Your task to perform on an android device: turn on the 24-hour format for clock Image 0: 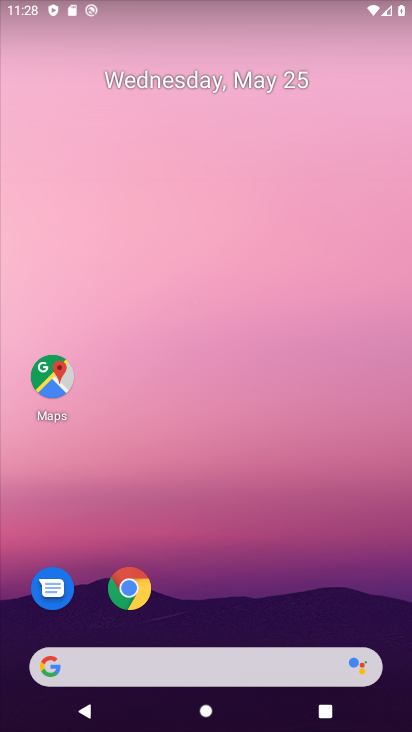
Step 0: drag from (246, 549) to (185, 155)
Your task to perform on an android device: turn on the 24-hour format for clock Image 1: 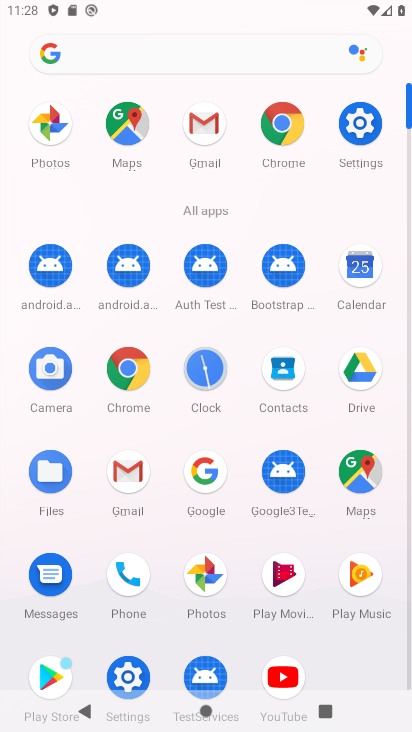
Step 1: click (206, 360)
Your task to perform on an android device: turn on the 24-hour format for clock Image 2: 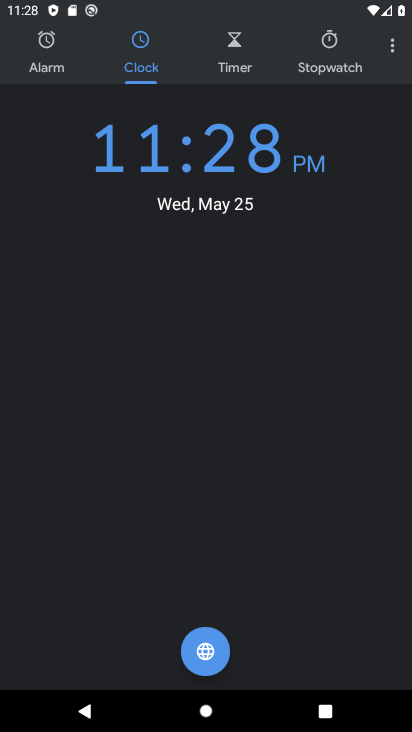
Step 2: click (390, 54)
Your task to perform on an android device: turn on the 24-hour format for clock Image 3: 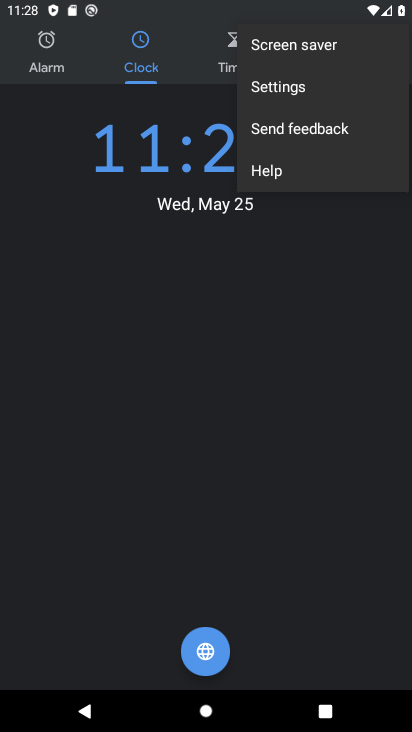
Step 3: click (302, 85)
Your task to perform on an android device: turn on the 24-hour format for clock Image 4: 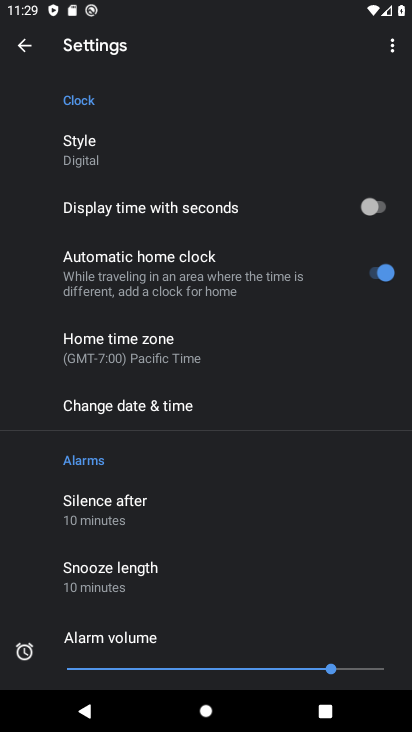
Step 4: click (147, 401)
Your task to perform on an android device: turn on the 24-hour format for clock Image 5: 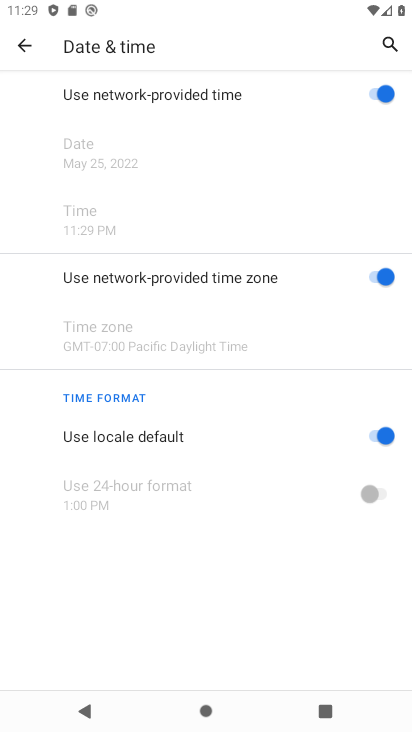
Step 5: click (364, 481)
Your task to perform on an android device: turn on the 24-hour format for clock Image 6: 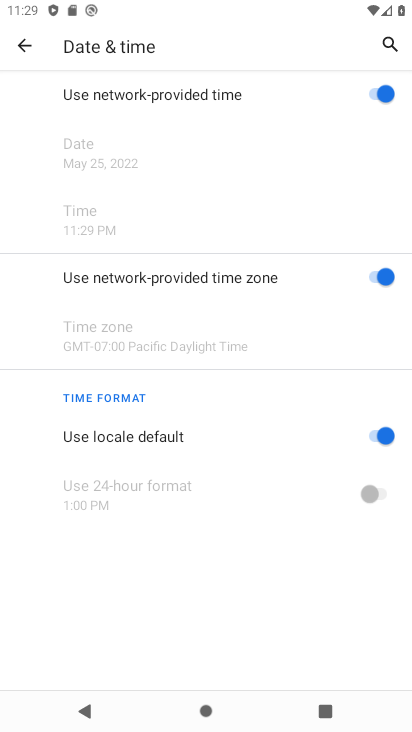
Step 6: click (388, 430)
Your task to perform on an android device: turn on the 24-hour format for clock Image 7: 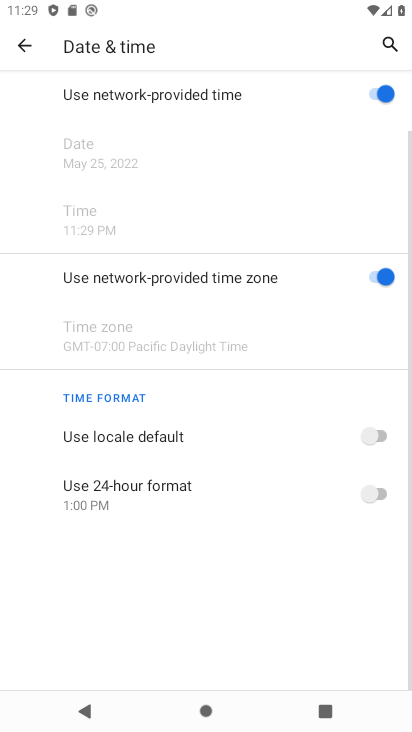
Step 7: click (370, 499)
Your task to perform on an android device: turn on the 24-hour format for clock Image 8: 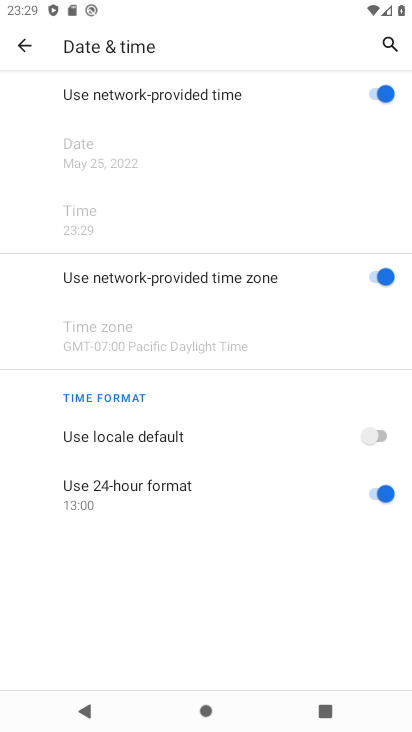
Step 8: task complete